Your task to perform on an android device: change the clock display to digital Image 0: 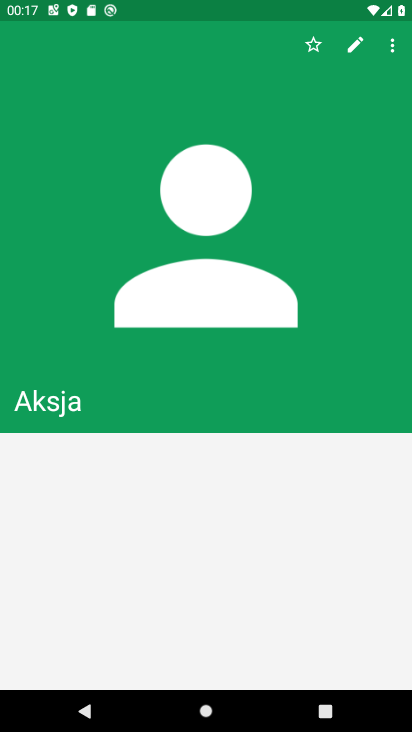
Step 0: drag from (185, 615) to (210, 110)
Your task to perform on an android device: change the clock display to digital Image 1: 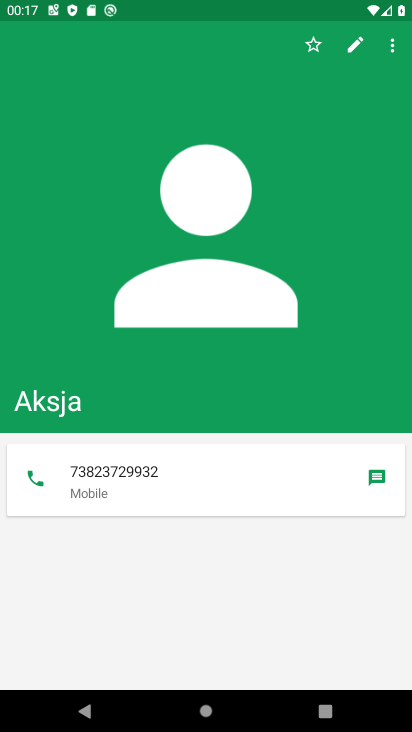
Step 1: press home button
Your task to perform on an android device: change the clock display to digital Image 2: 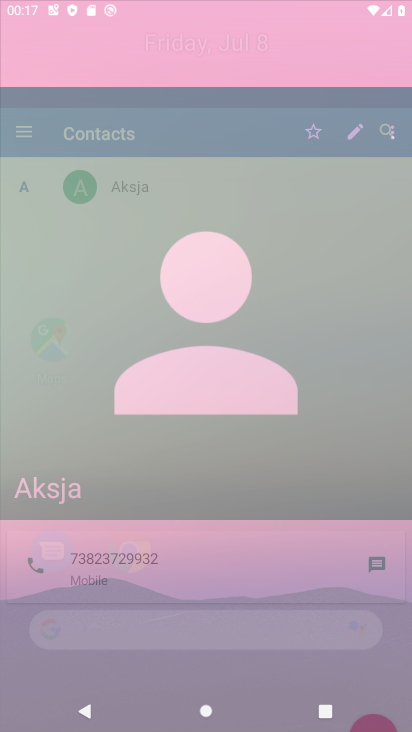
Step 2: drag from (234, 582) to (225, 191)
Your task to perform on an android device: change the clock display to digital Image 3: 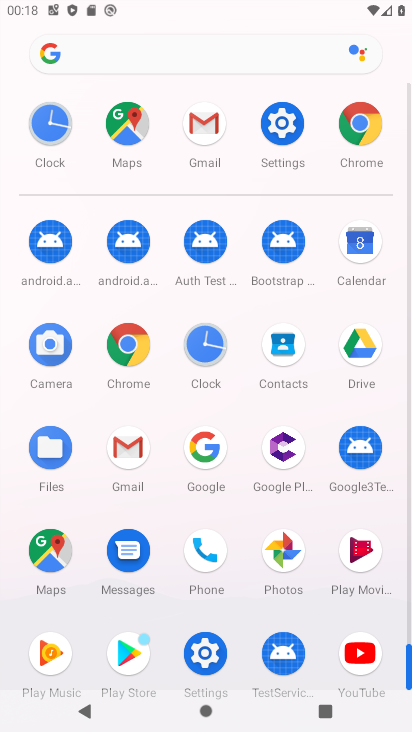
Step 3: click (136, 441)
Your task to perform on an android device: change the clock display to digital Image 4: 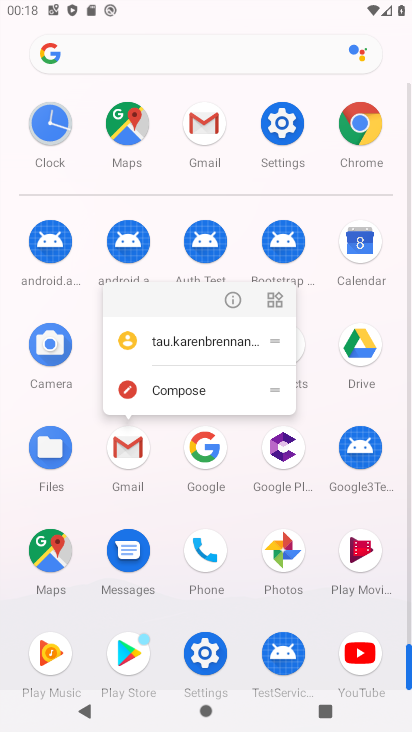
Step 4: click (228, 300)
Your task to perform on an android device: change the clock display to digital Image 5: 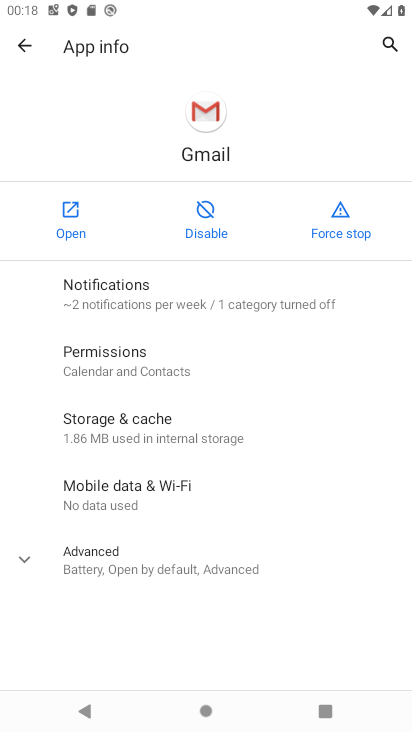
Step 5: press home button
Your task to perform on an android device: change the clock display to digital Image 6: 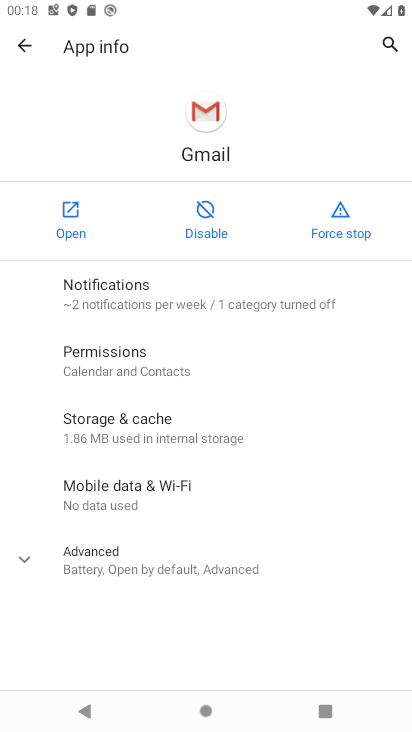
Step 6: drag from (197, 518) to (285, 128)
Your task to perform on an android device: change the clock display to digital Image 7: 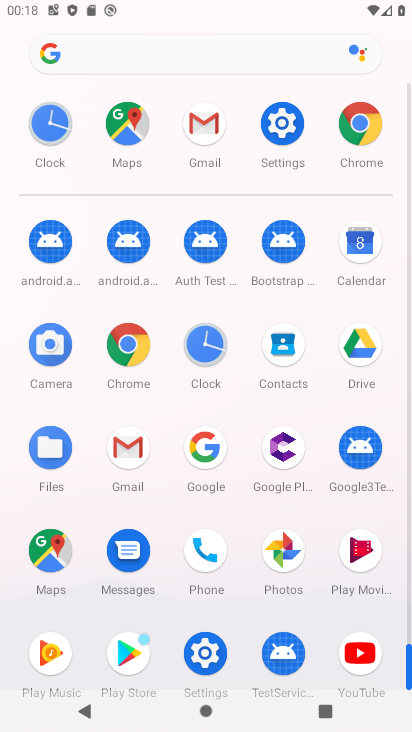
Step 7: click (215, 313)
Your task to perform on an android device: change the clock display to digital Image 8: 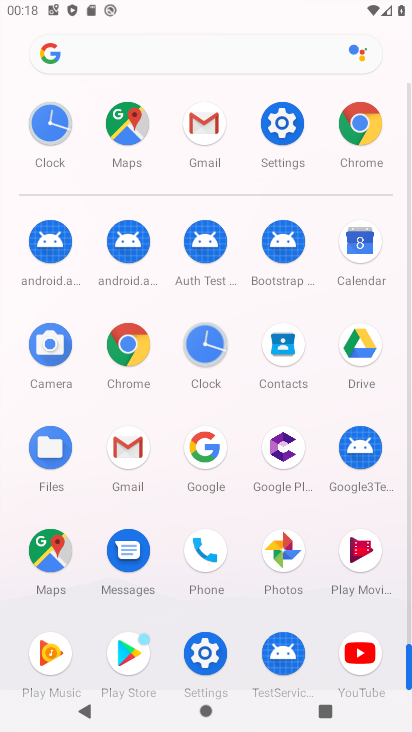
Step 8: click (214, 338)
Your task to perform on an android device: change the clock display to digital Image 9: 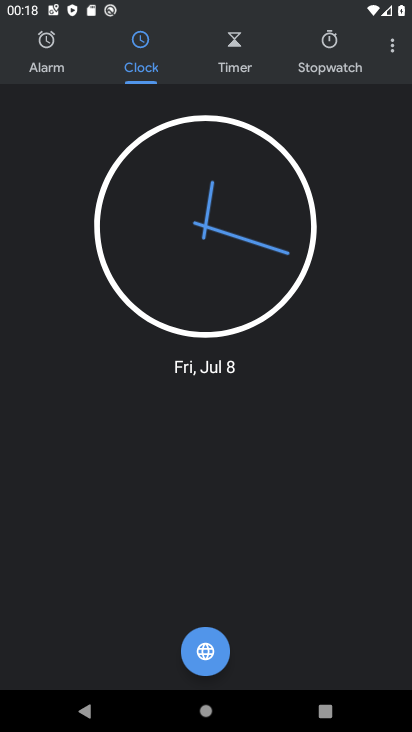
Step 9: click (391, 41)
Your task to perform on an android device: change the clock display to digital Image 10: 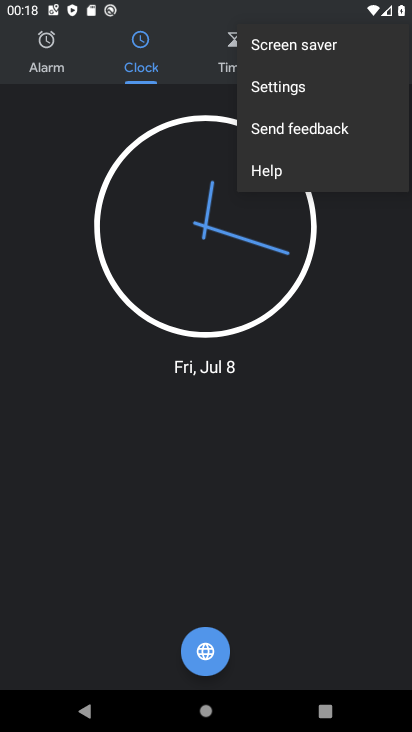
Step 10: click (283, 88)
Your task to perform on an android device: change the clock display to digital Image 11: 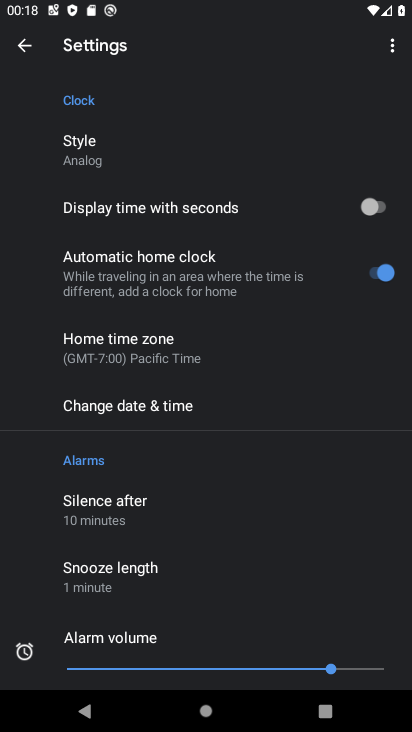
Step 11: click (151, 131)
Your task to perform on an android device: change the clock display to digital Image 12: 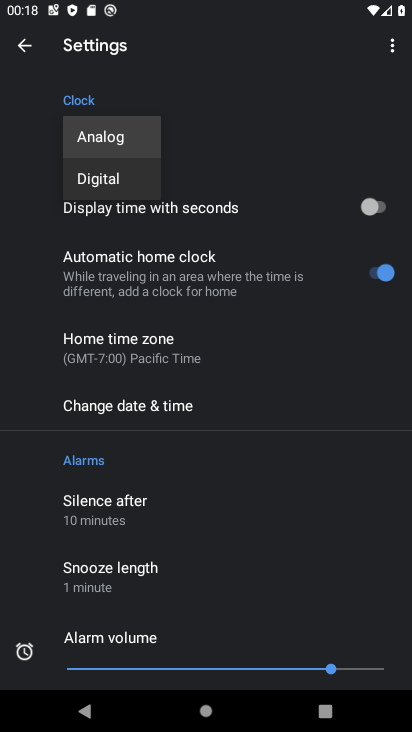
Step 12: click (127, 137)
Your task to perform on an android device: change the clock display to digital Image 13: 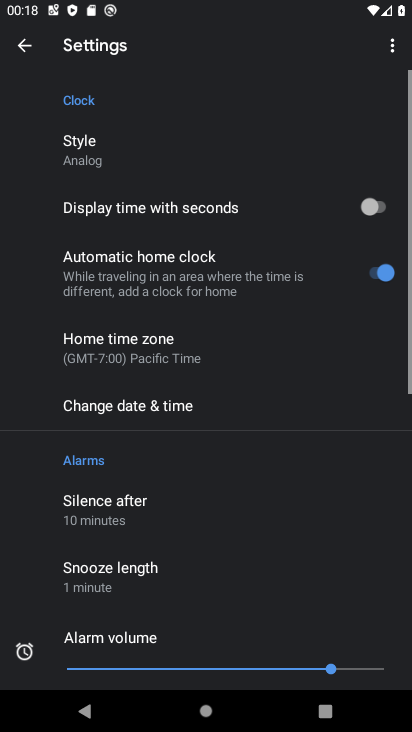
Step 13: click (115, 139)
Your task to perform on an android device: change the clock display to digital Image 14: 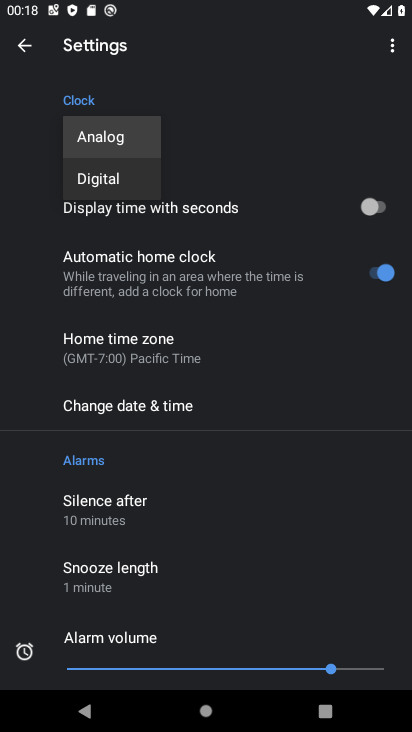
Step 14: click (94, 179)
Your task to perform on an android device: change the clock display to digital Image 15: 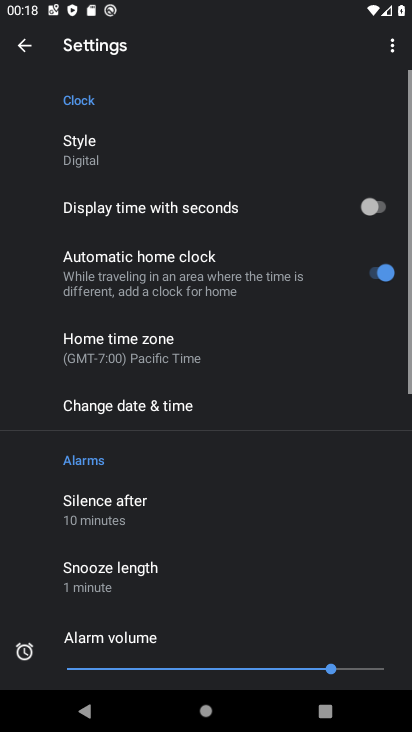
Step 15: task complete